Your task to perform on an android device: What's US dollar exchange rate against the Japanese Yen? Image 0: 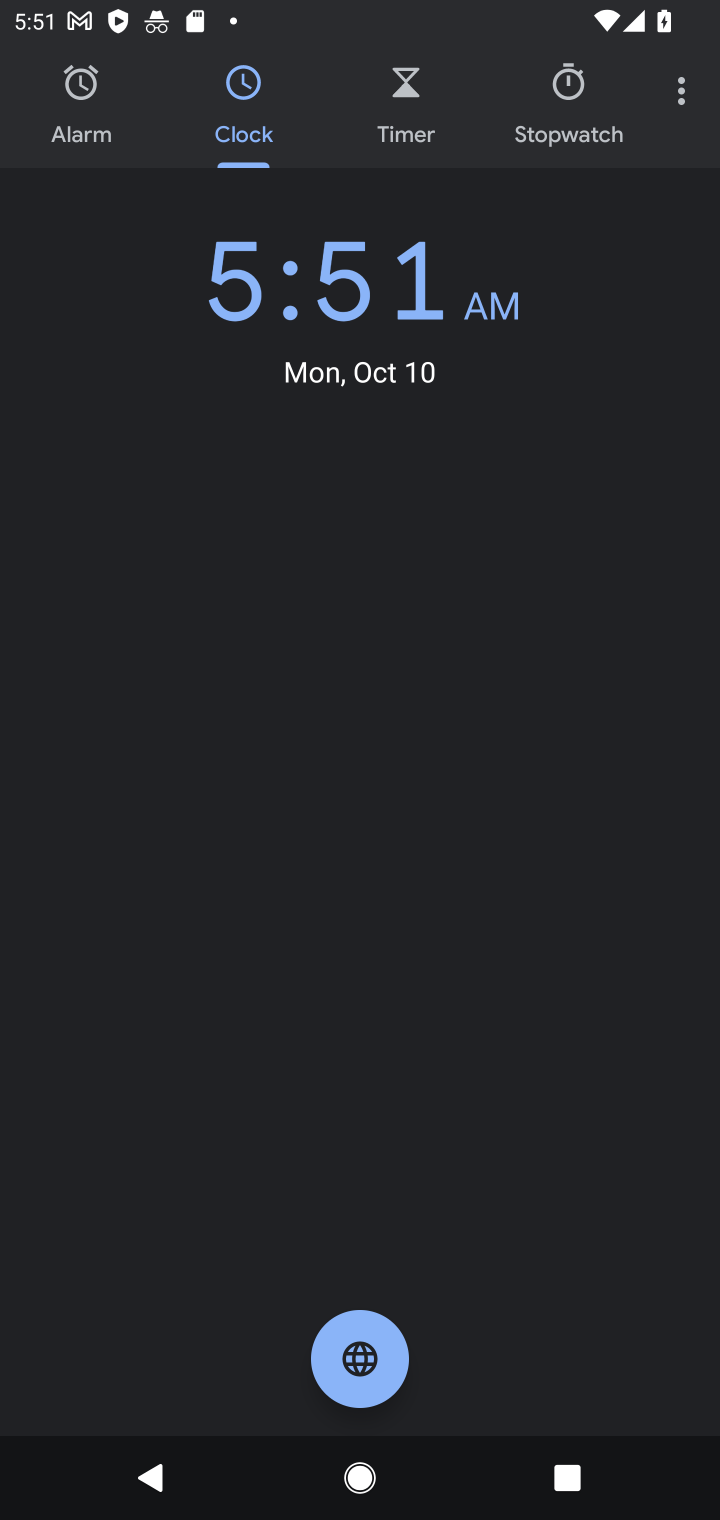
Step 0: press home button
Your task to perform on an android device: What's US dollar exchange rate against the Japanese Yen? Image 1: 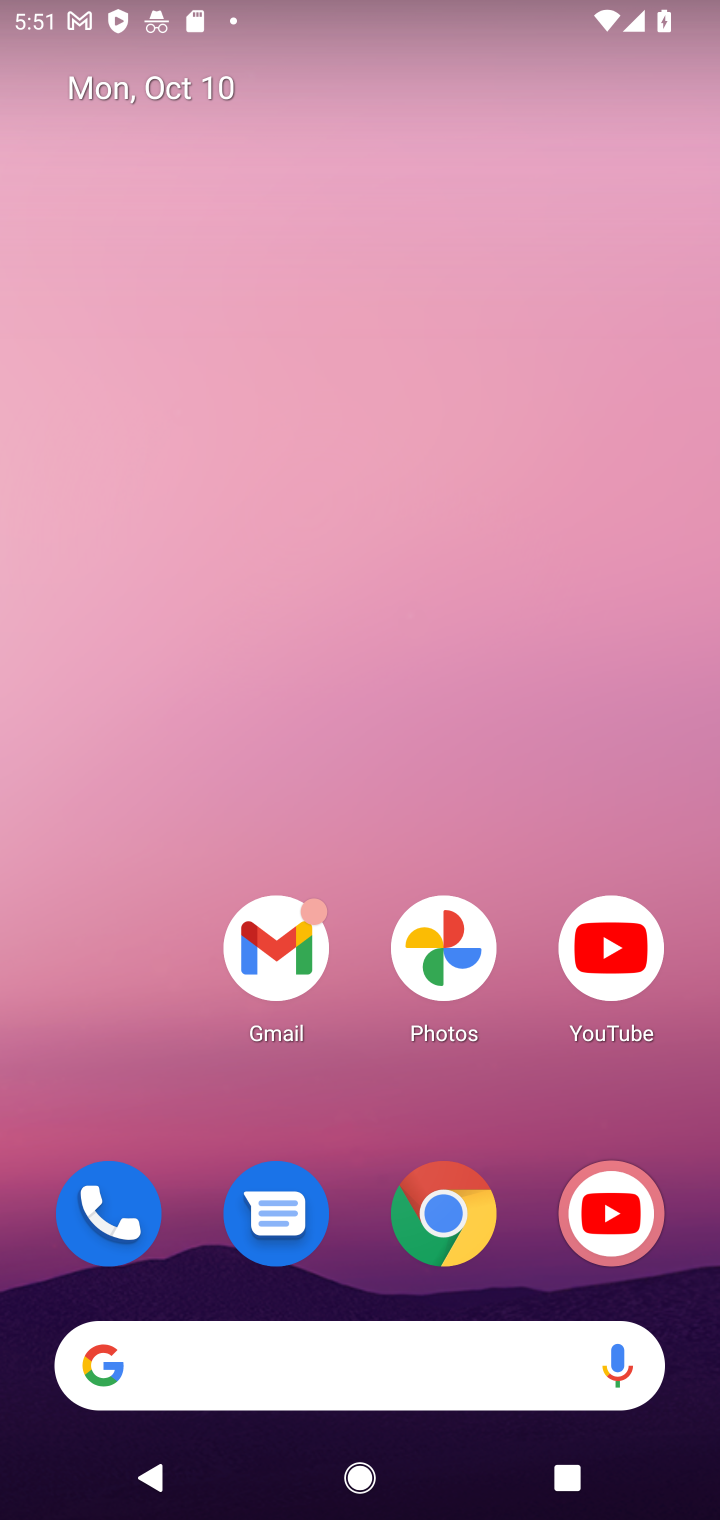
Step 1: click (305, 1376)
Your task to perform on an android device: What's US dollar exchange rate against the Japanese Yen? Image 2: 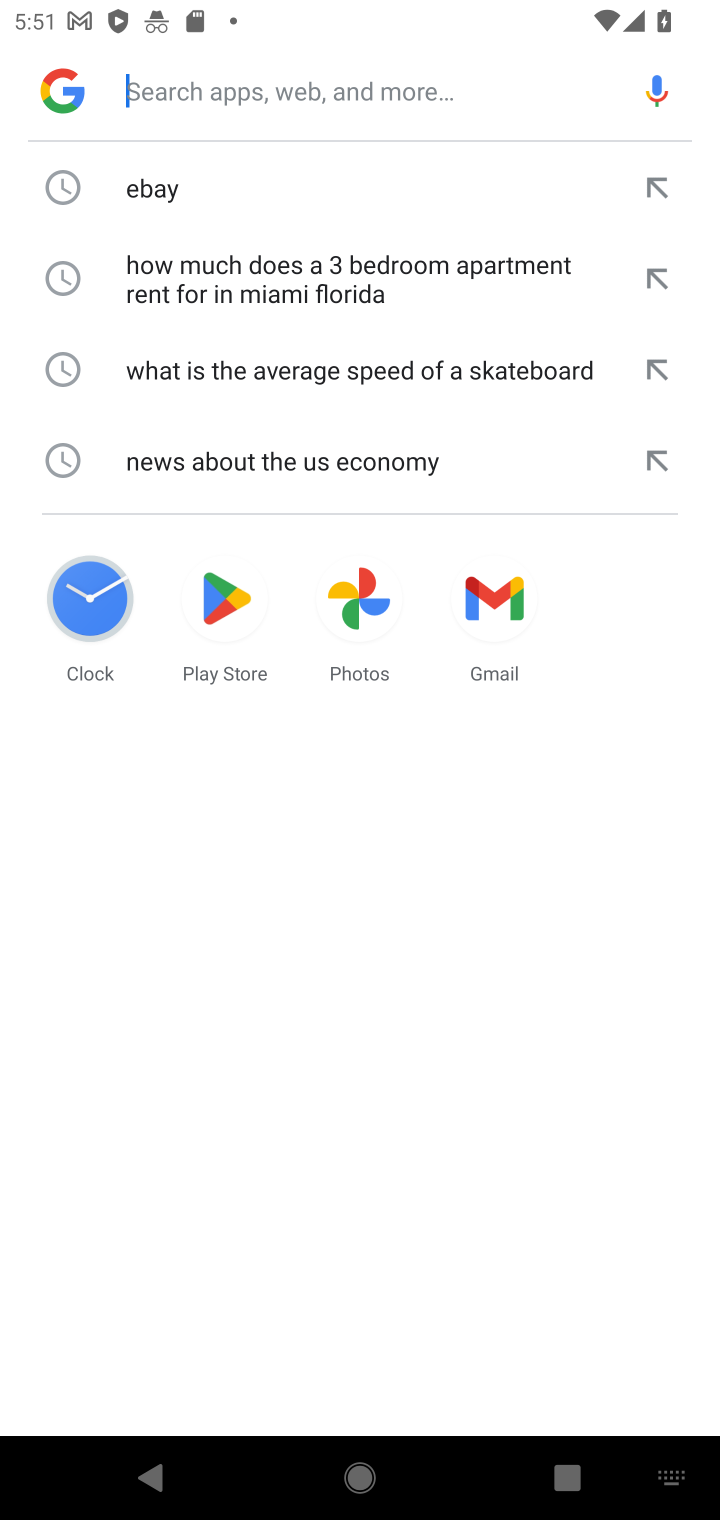
Step 2: click (480, 1452)
Your task to perform on an android device: What's US dollar exchange rate against the Japanese Yen? Image 3: 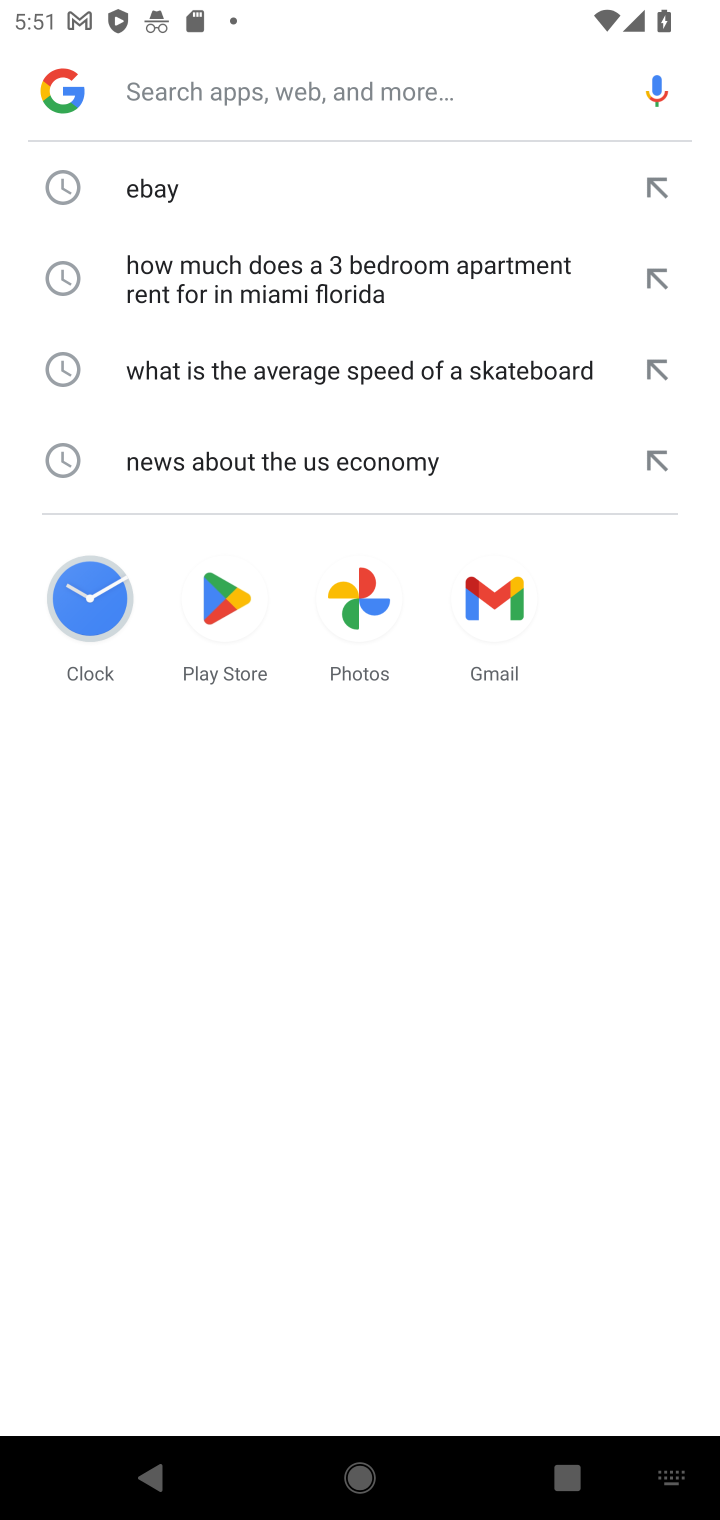
Step 3: click (190, 99)
Your task to perform on an android device: What's US dollar exchange rate against the Japanese Yen? Image 4: 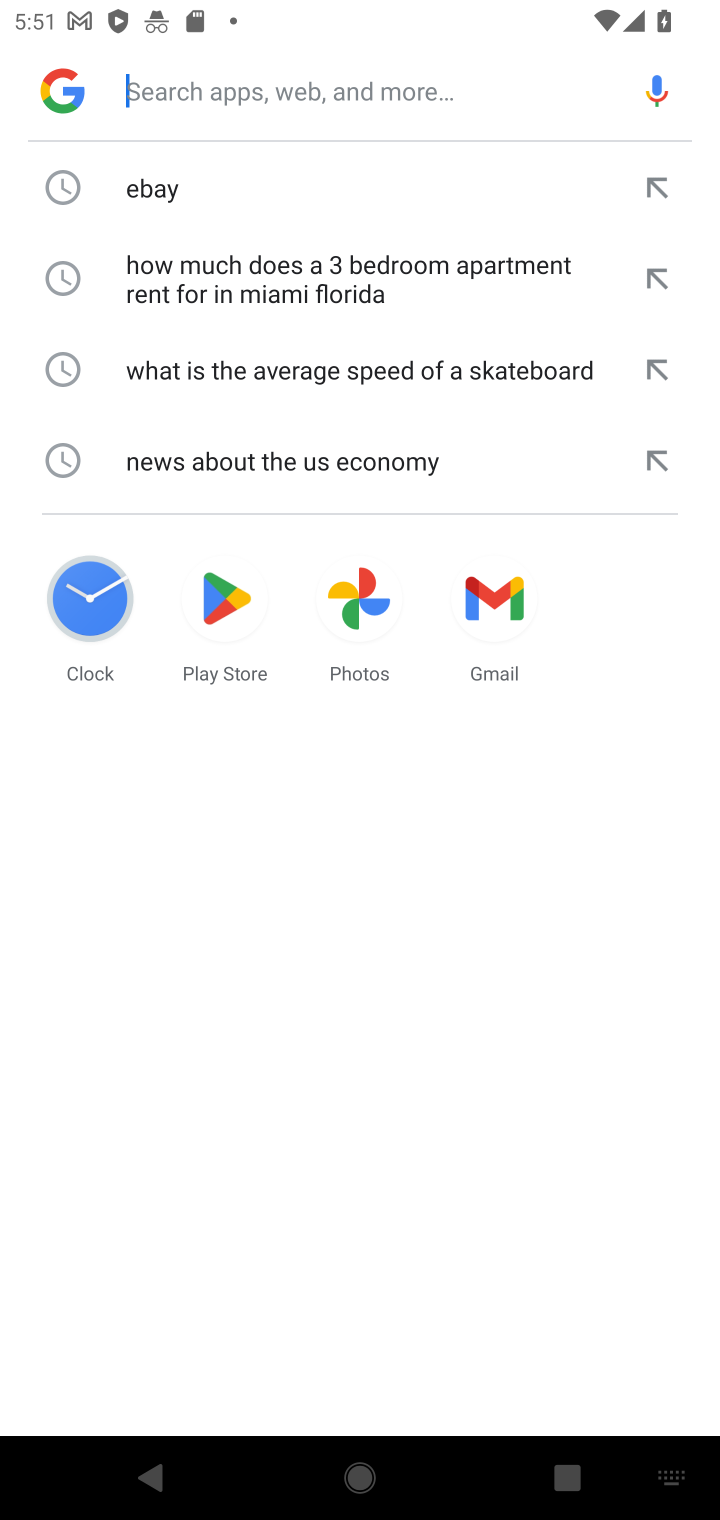
Step 4: type "What's US dollar exchange rate against the Japanese Yen?"
Your task to perform on an android device: What's US dollar exchange rate against the Japanese Yen? Image 5: 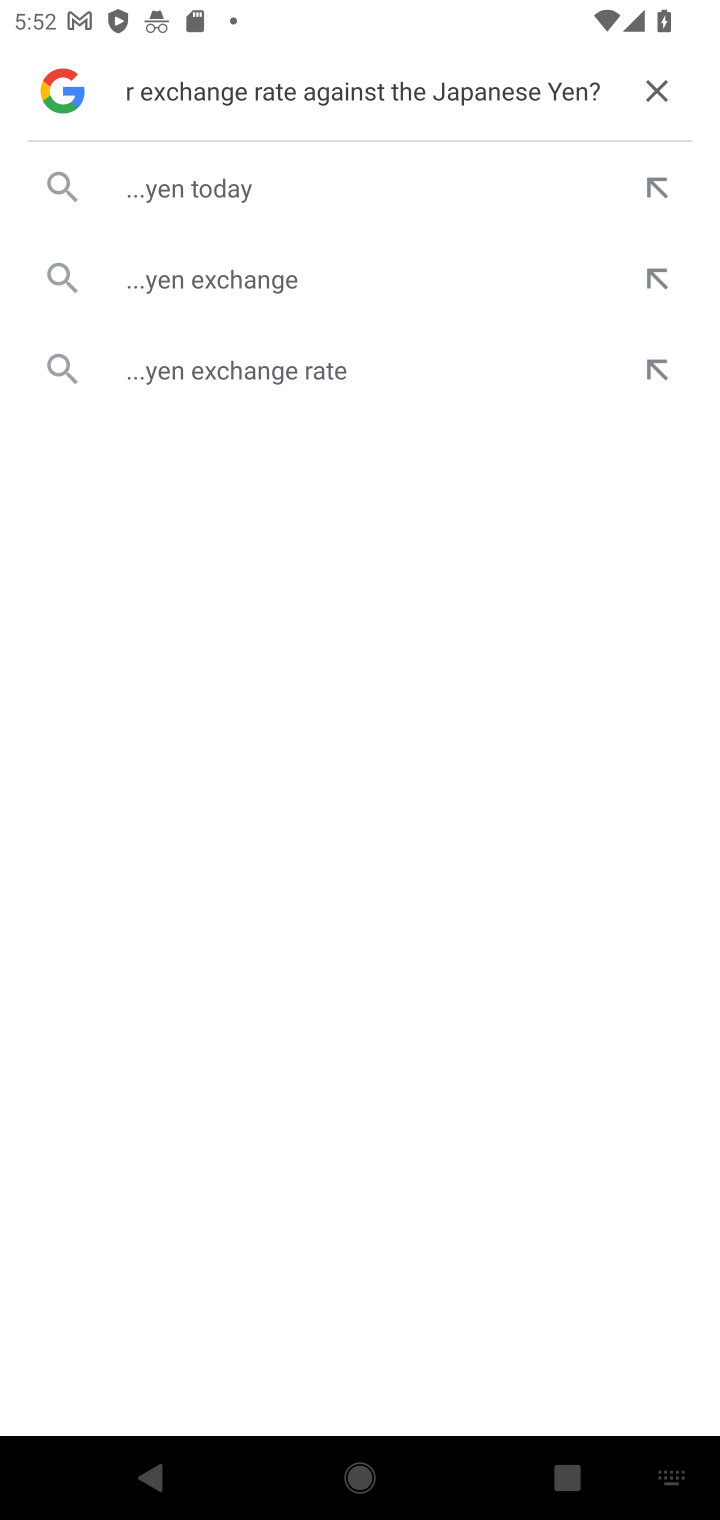
Step 5: click (181, 169)
Your task to perform on an android device: What's US dollar exchange rate against the Japanese Yen? Image 6: 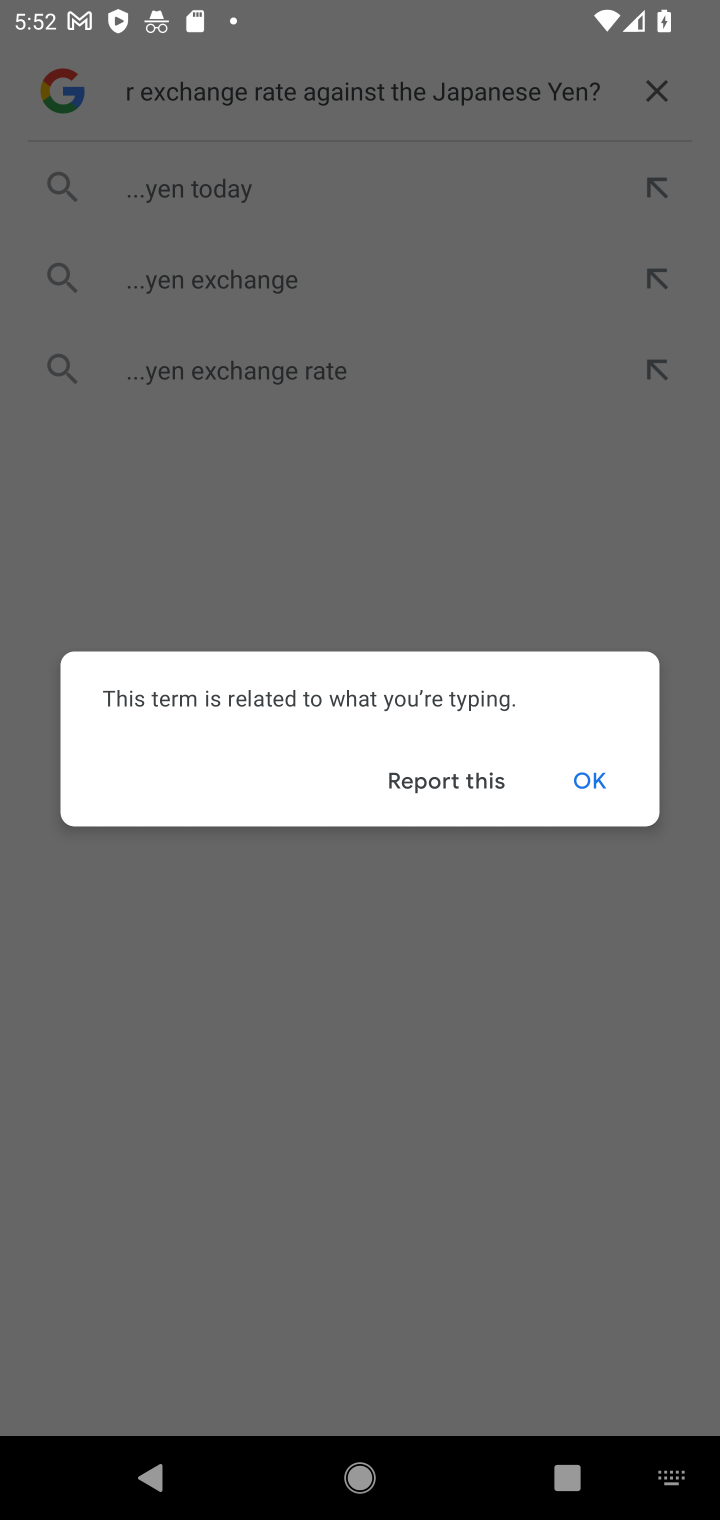
Step 6: click (601, 763)
Your task to perform on an android device: What's US dollar exchange rate against the Japanese Yen? Image 7: 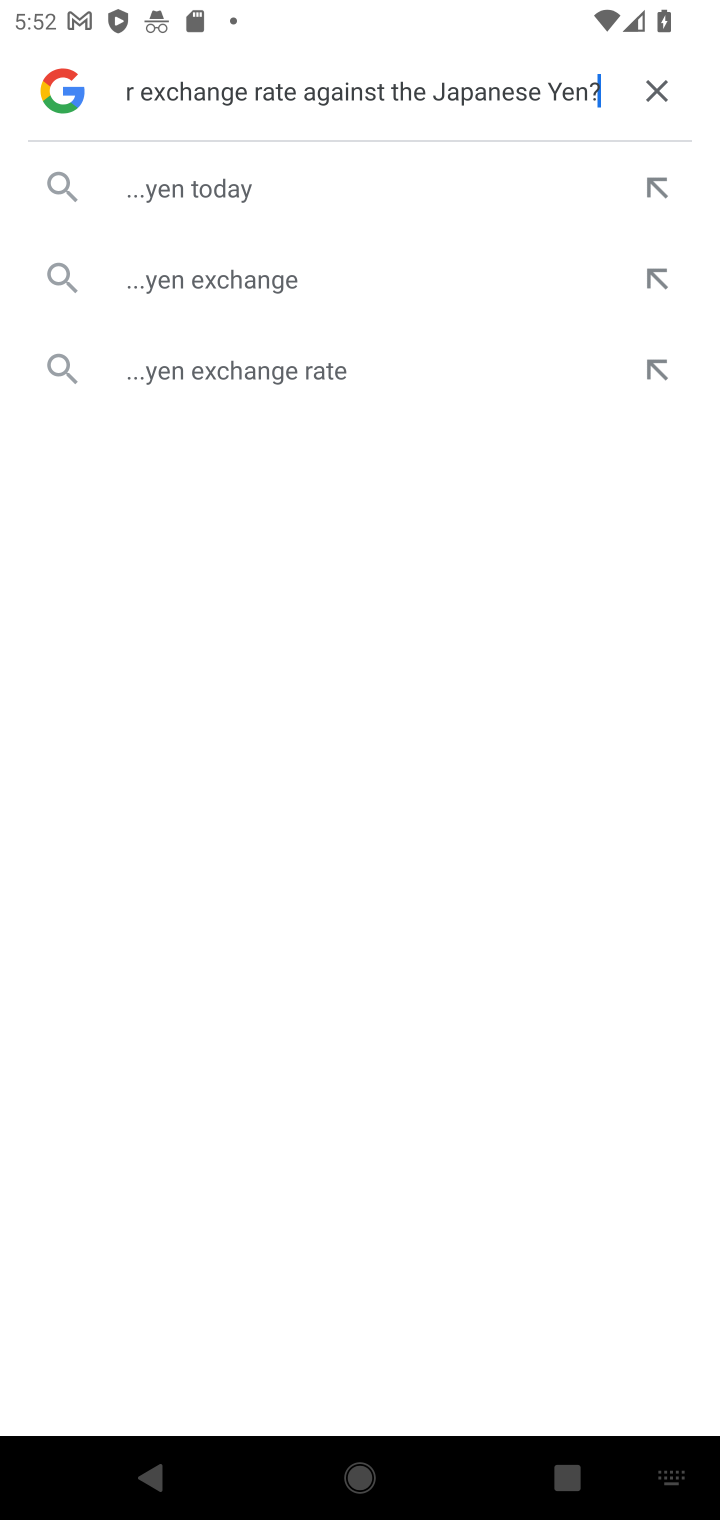
Step 7: click (157, 185)
Your task to perform on an android device: What's US dollar exchange rate against the Japanese Yen? Image 8: 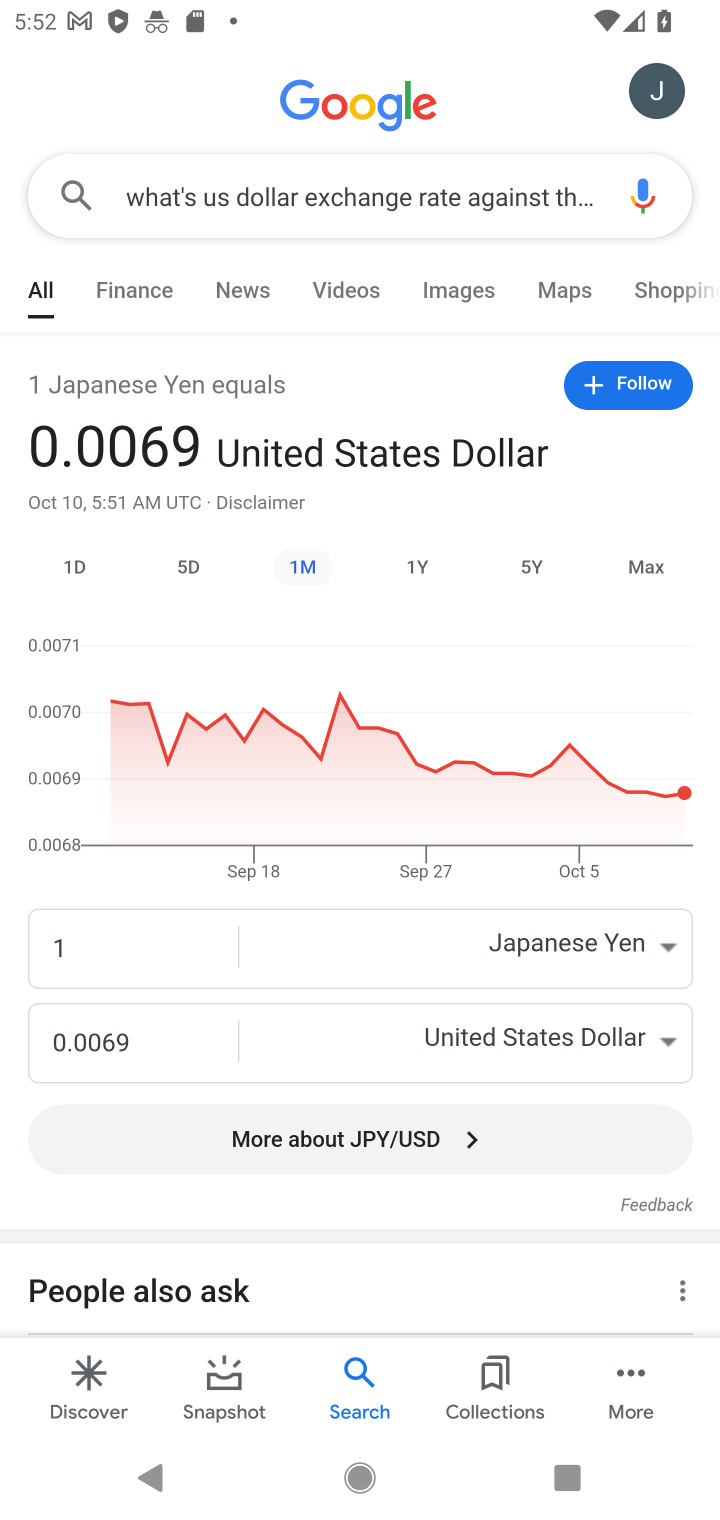
Step 8: task complete